Your task to perform on an android device: check out phone information Image 0: 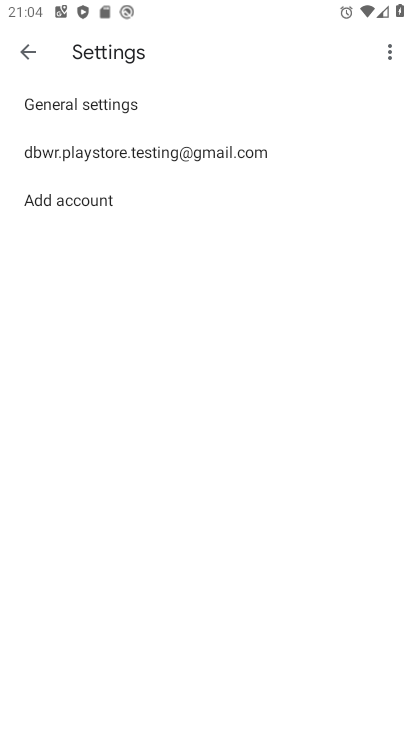
Step 0: press home button
Your task to perform on an android device: check out phone information Image 1: 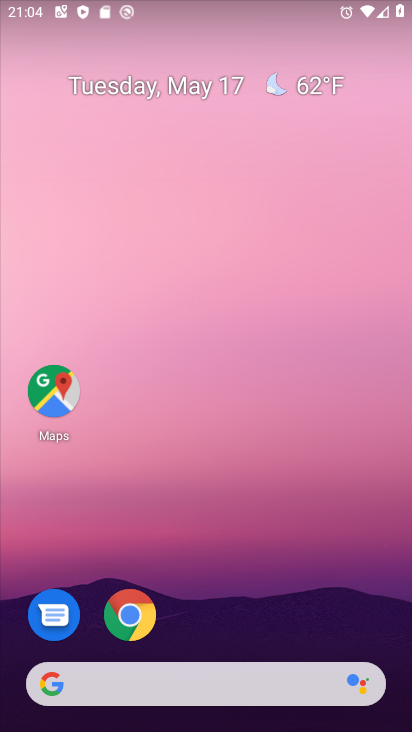
Step 1: drag from (231, 630) to (270, 26)
Your task to perform on an android device: check out phone information Image 2: 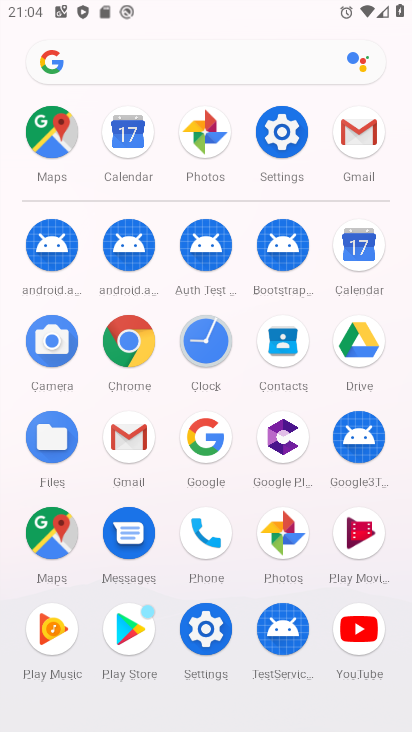
Step 2: click (205, 531)
Your task to perform on an android device: check out phone information Image 3: 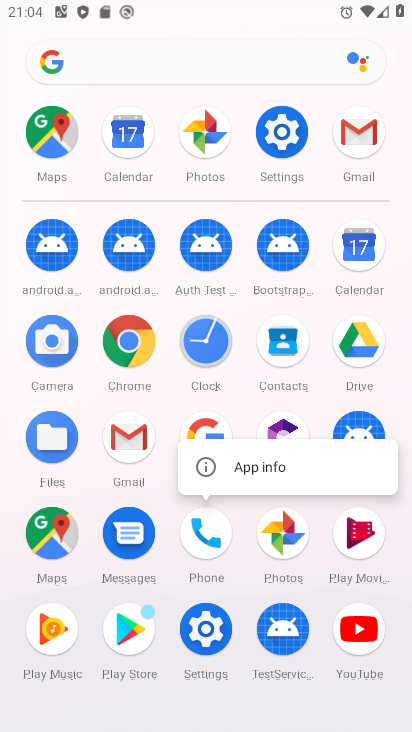
Step 3: click (259, 463)
Your task to perform on an android device: check out phone information Image 4: 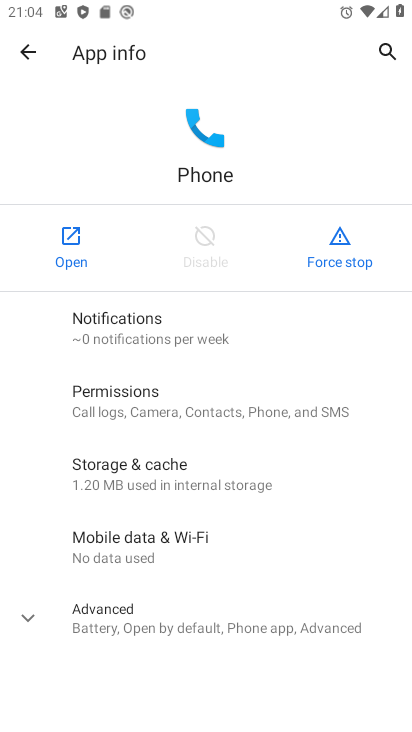
Step 4: task complete